Your task to perform on an android device: Play the latest video from the Huffington Post Image 0: 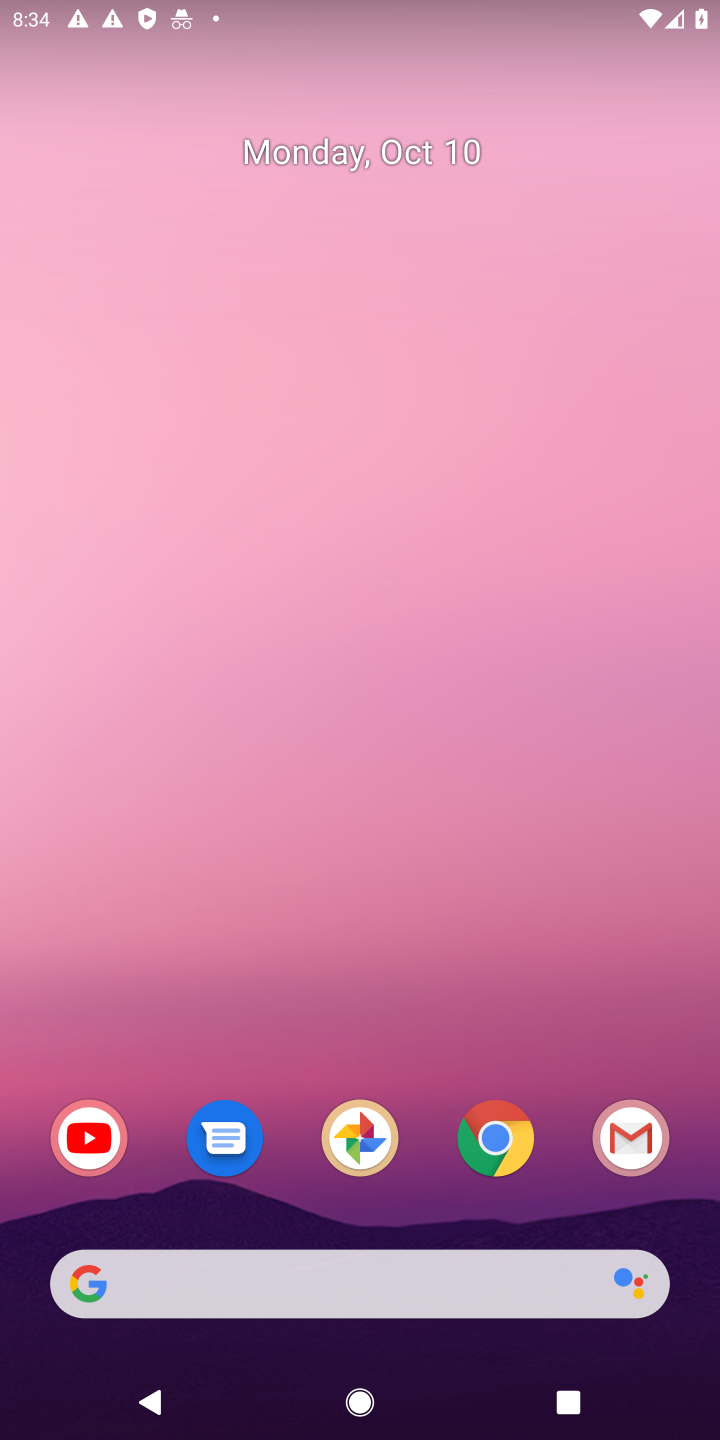
Step 0: click (96, 1137)
Your task to perform on an android device: Play the latest video from the Huffington Post Image 1: 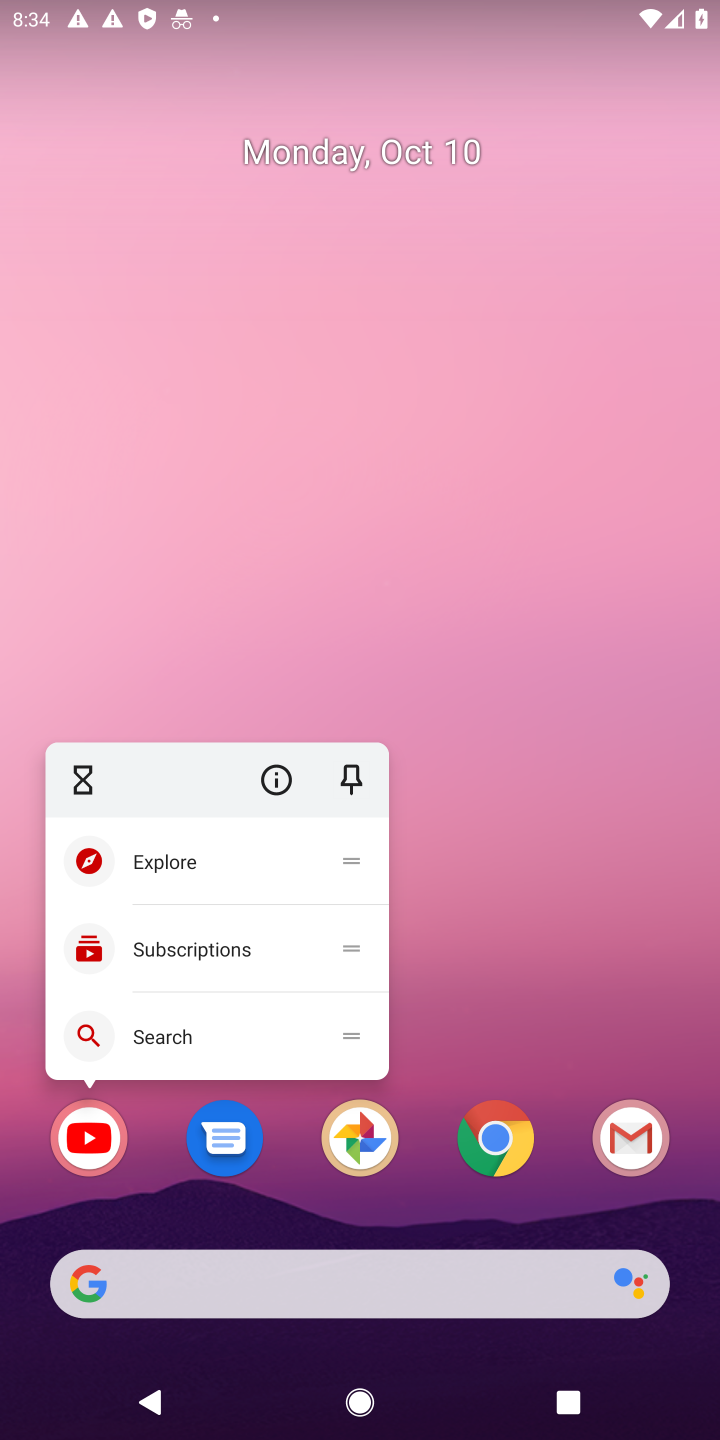
Step 1: click (96, 1137)
Your task to perform on an android device: Play the latest video from the Huffington Post Image 2: 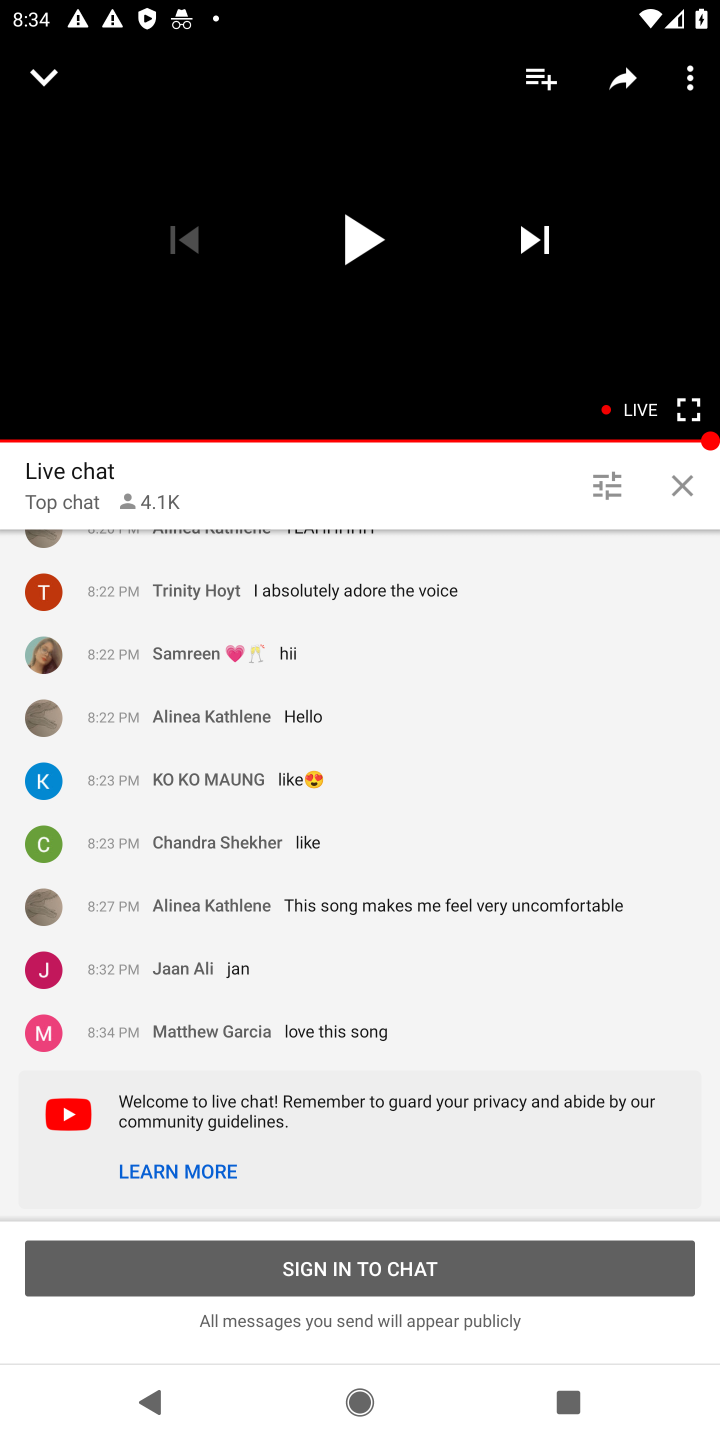
Step 2: press back button
Your task to perform on an android device: Play the latest video from the Huffington Post Image 3: 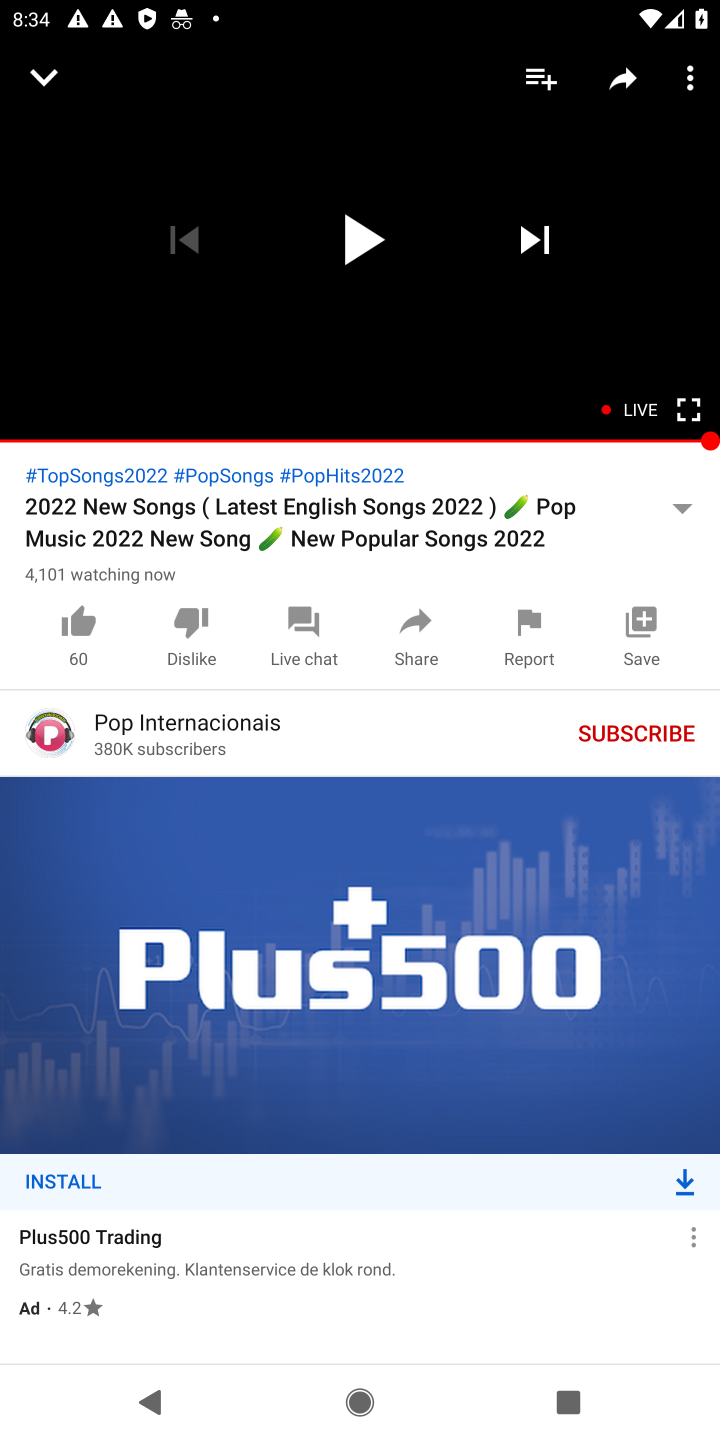
Step 3: press back button
Your task to perform on an android device: Play the latest video from the Huffington Post Image 4: 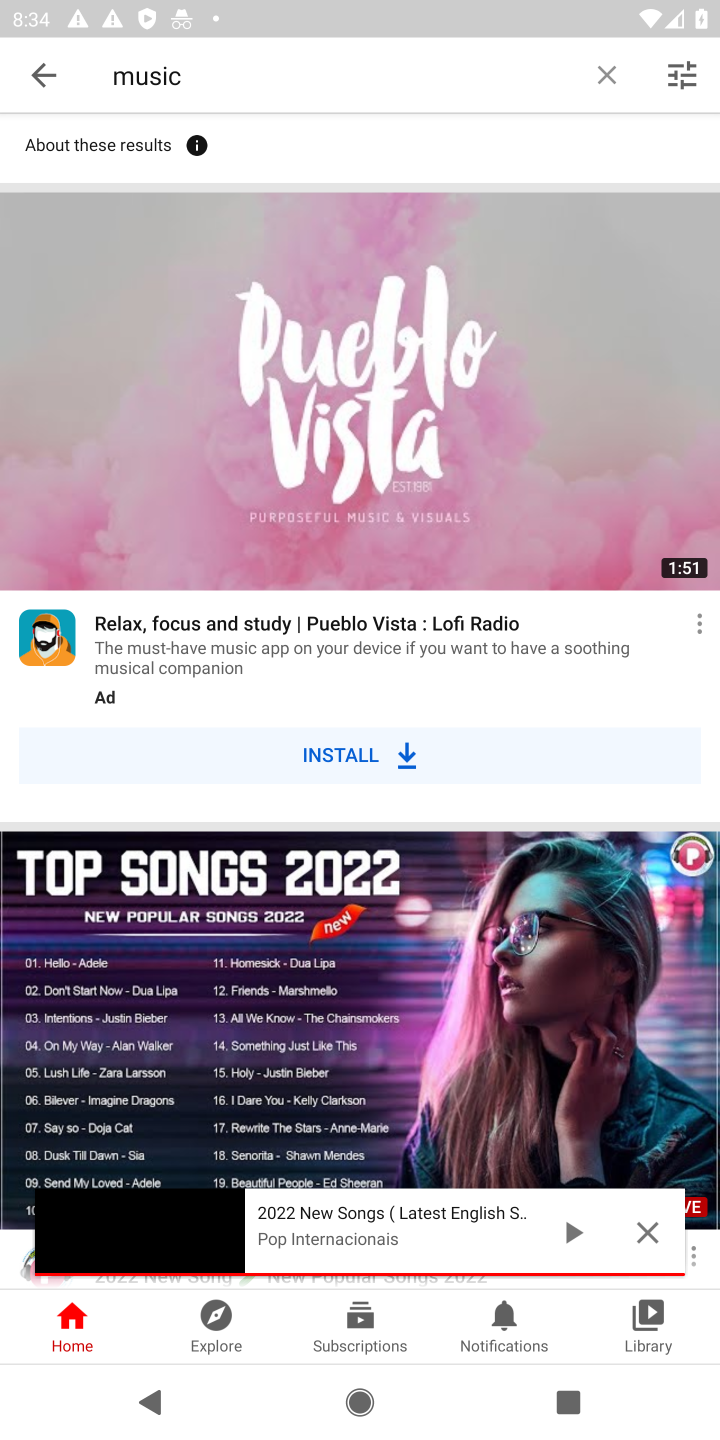
Step 4: click (652, 1232)
Your task to perform on an android device: Play the latest video from the Huffington Post Image 5: 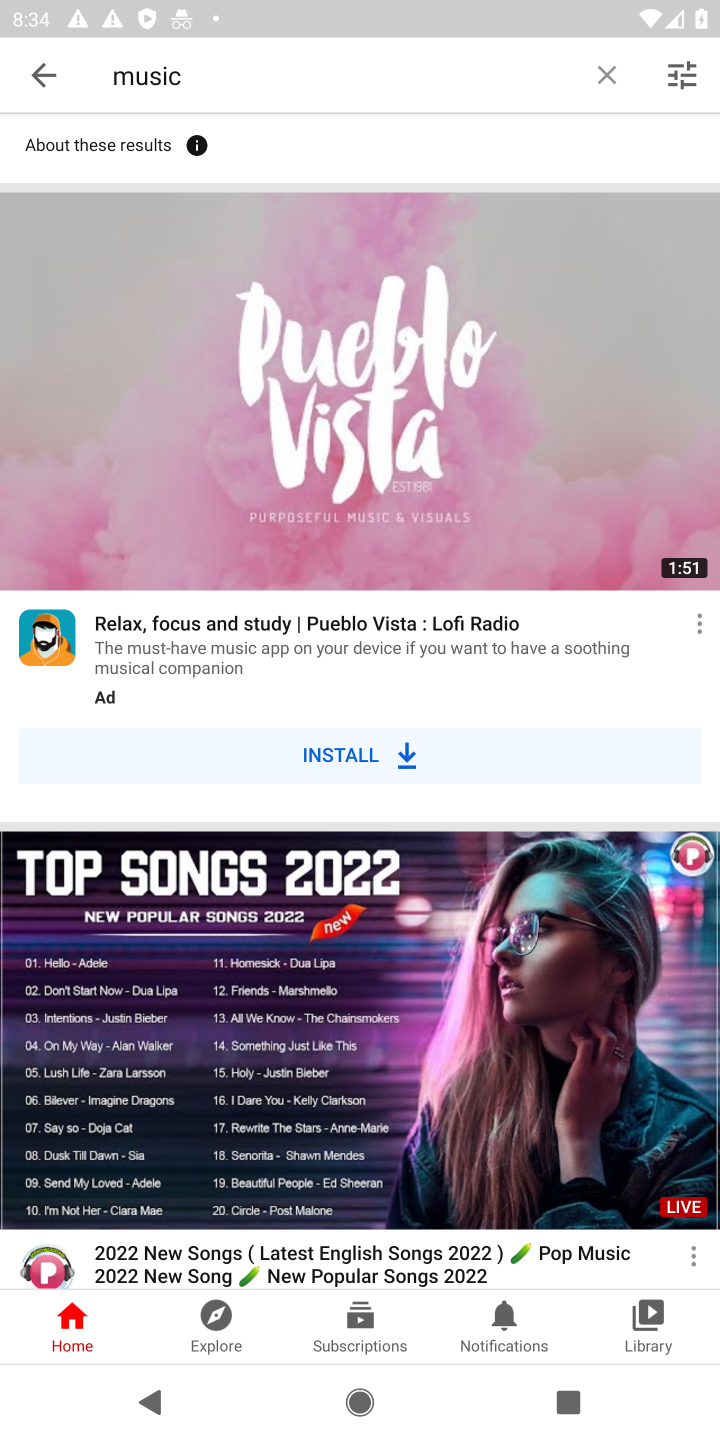
Step 5: click (601, 67)
Your task to perform on an android device: Play the latest video from the Huffington Post Image 6: 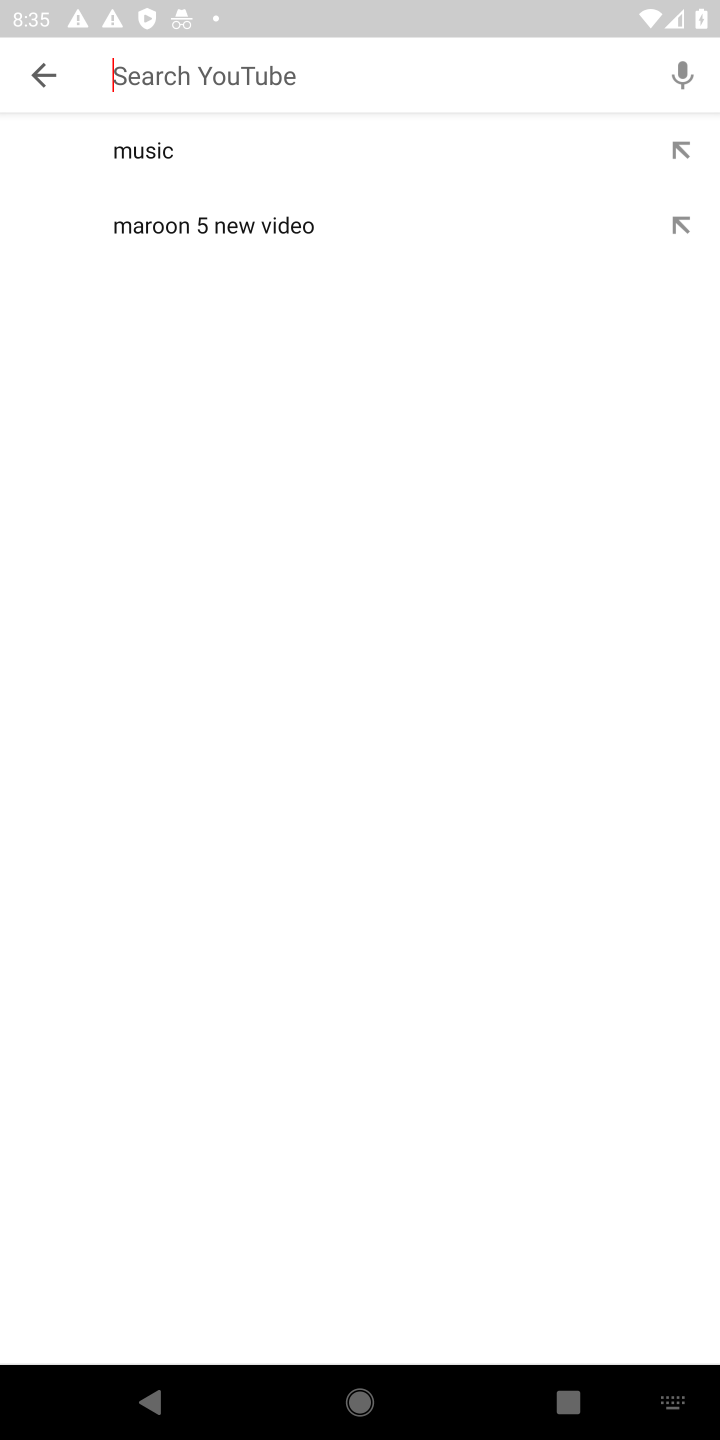
Step 6: type "latest video the Huffington Post"
Your task to perform on an android device: Play the latest video from the Huffington Post Image 7: 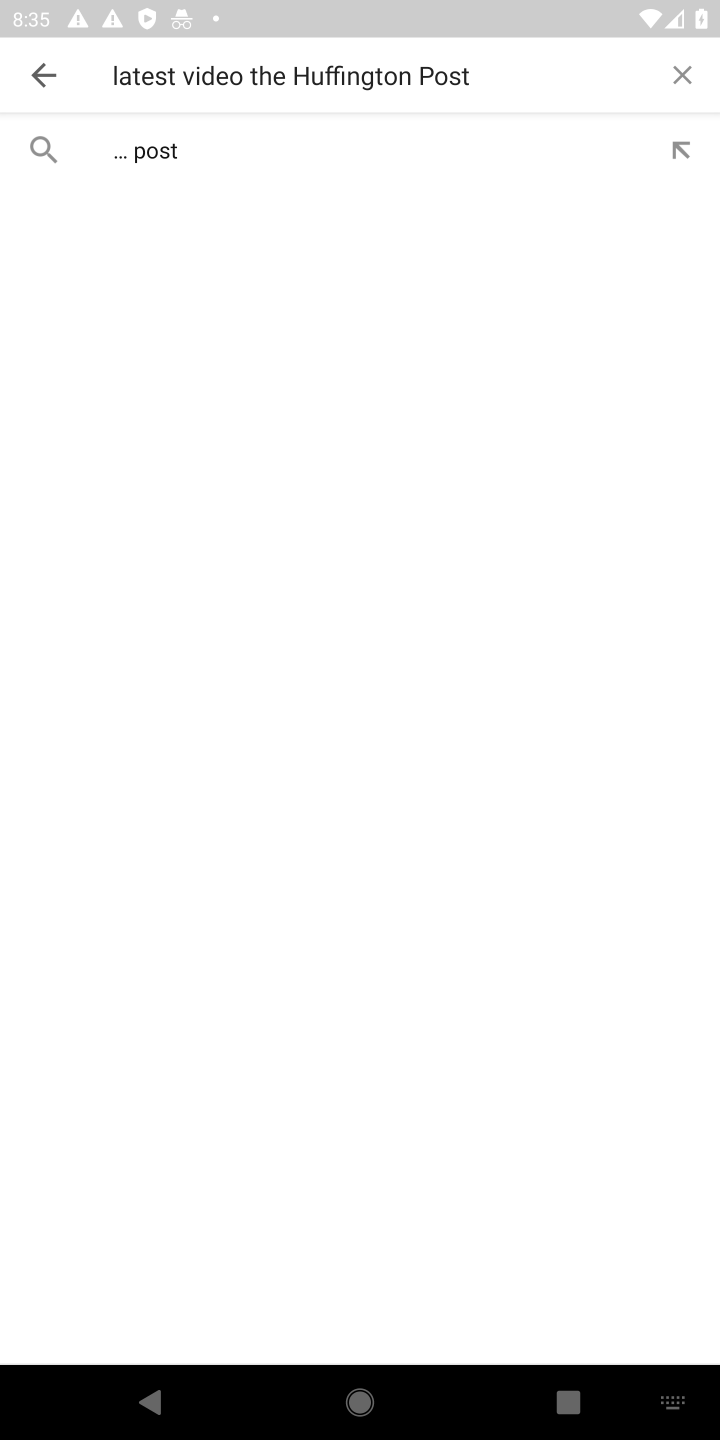
Step 7: click (153, 154)
Your task to perform on an android device: Play the latest video from the Huffington Post Image 8: 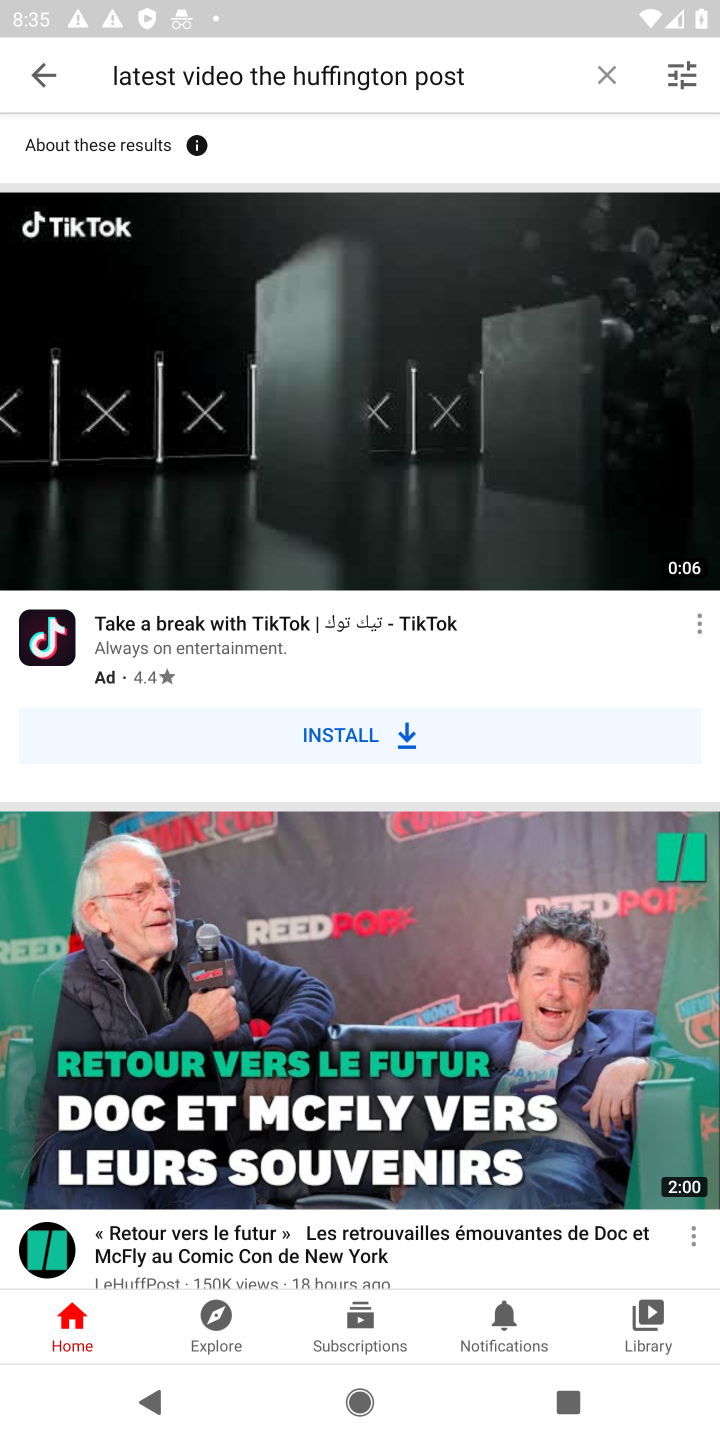
Step 8: drag from (377, 1000) to (461, 854)
Your task to perform on an android device: Play the latest video from the Huffington Post Image 9: 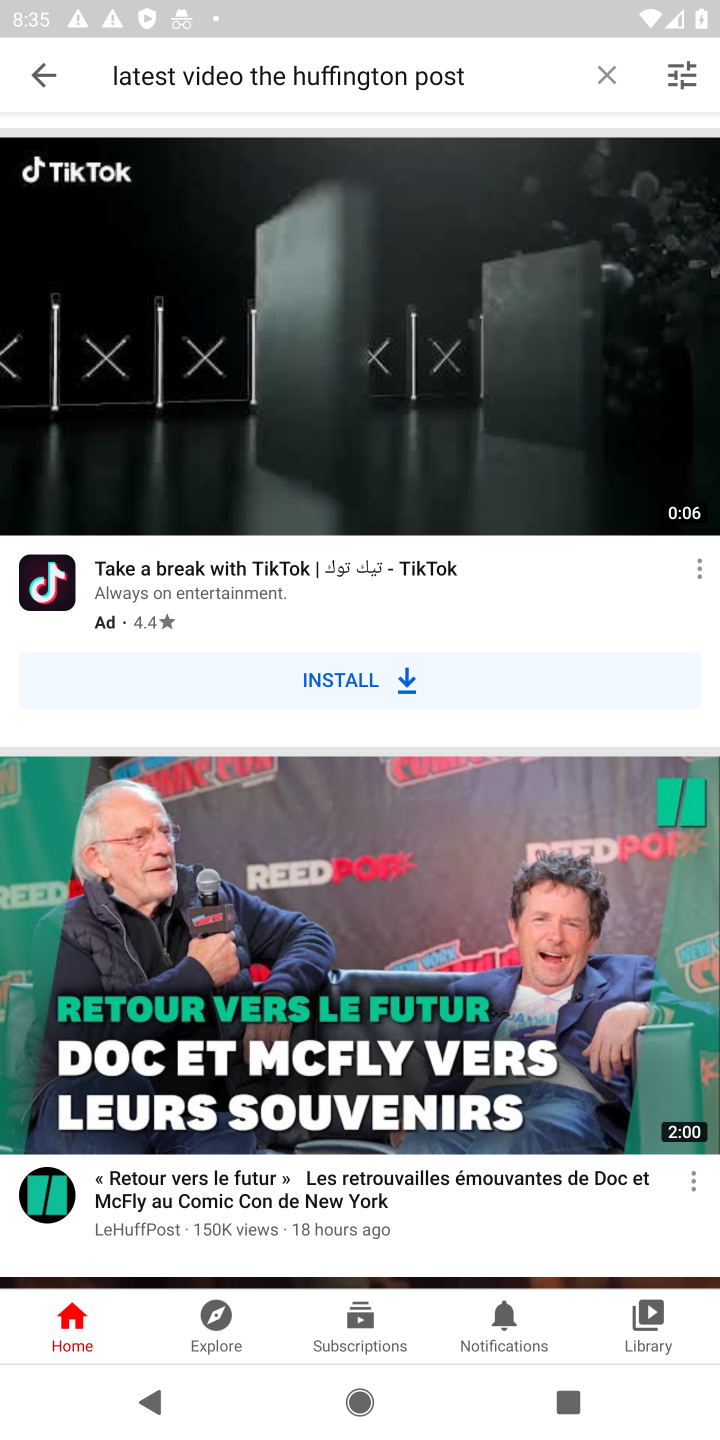
Step 9: drag from (364, 1226) to (535, 840)
Your task to perform on an android device: Play the latest video from the Huffington Post Image 10: 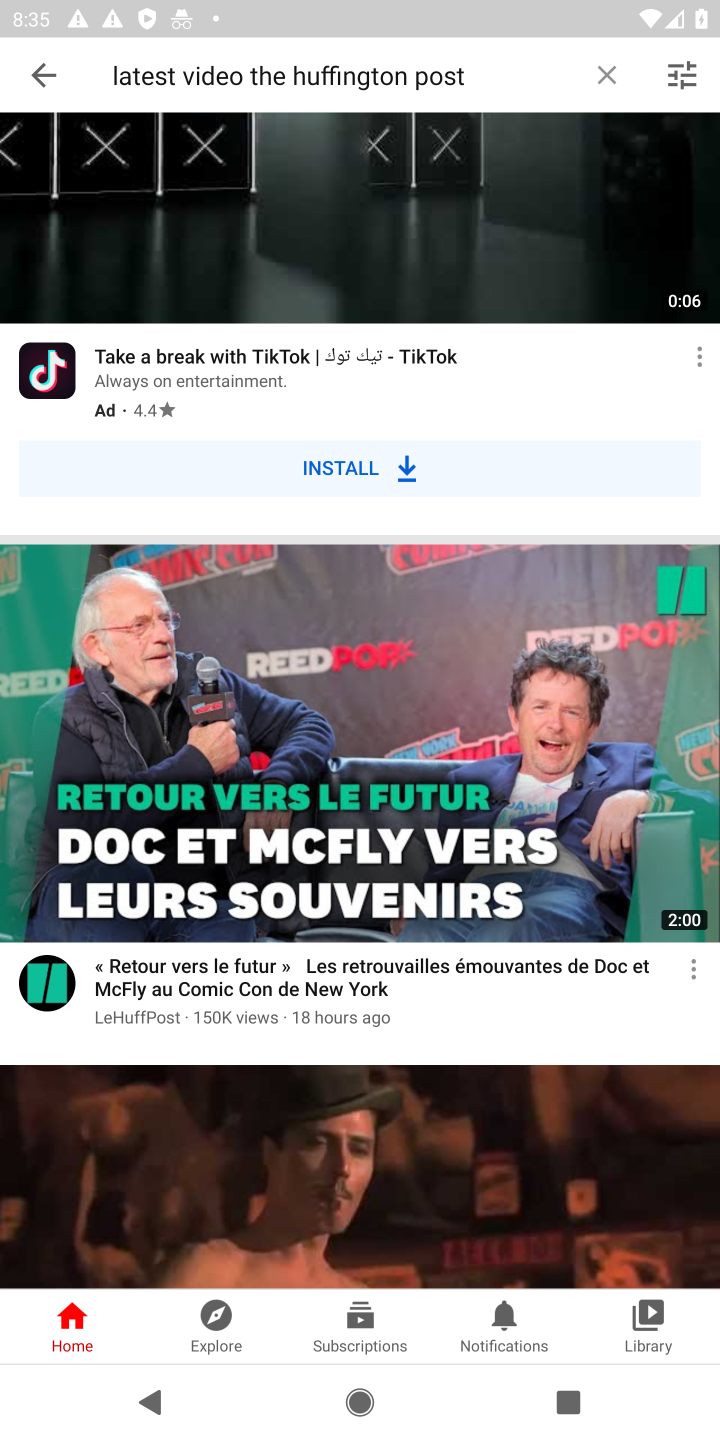
Step 10: drag from (326, 1057) to (517, 601)
Your task to perform on an android device: Play the latest video from the Huffington Post Image 11: 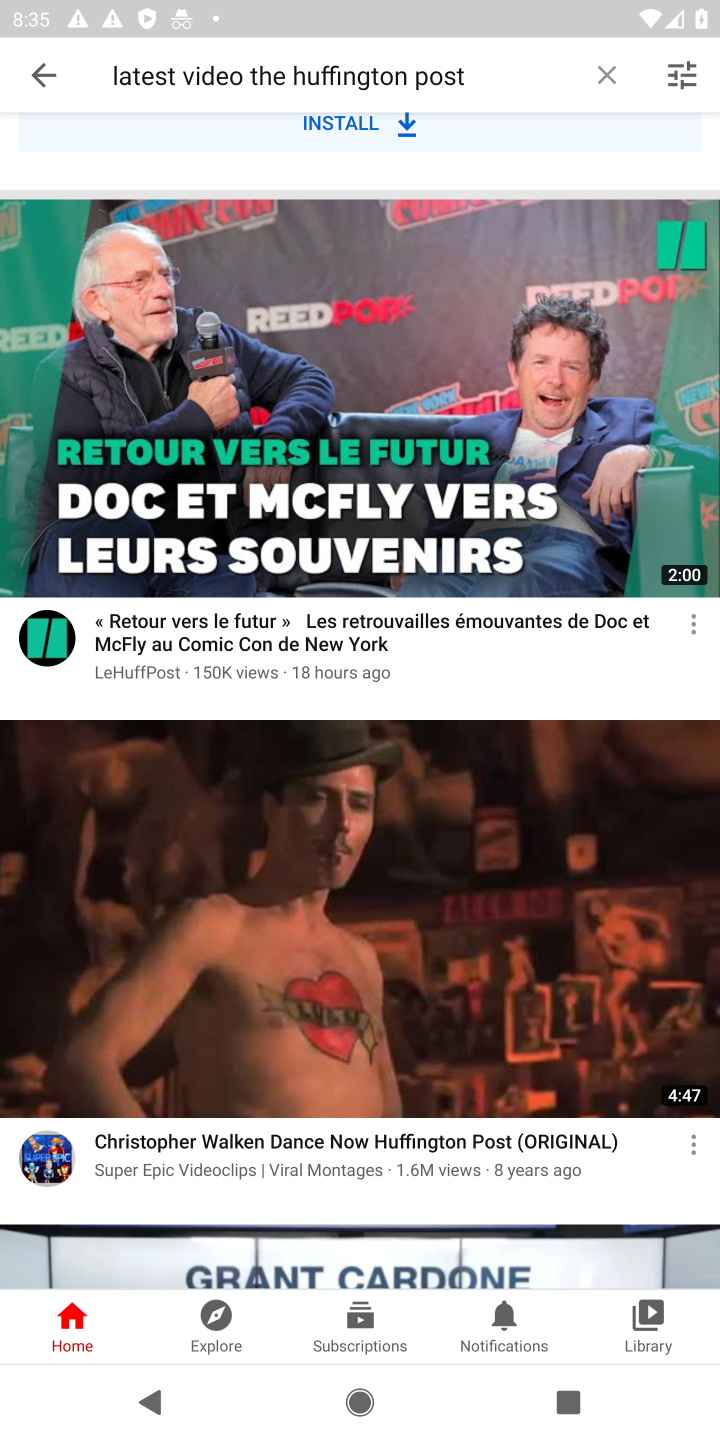
Step 11: drag from (319, 1176) to (525, 530)
Your task to perform on an android device: Play the latest video from the Huffington Post Image 12: 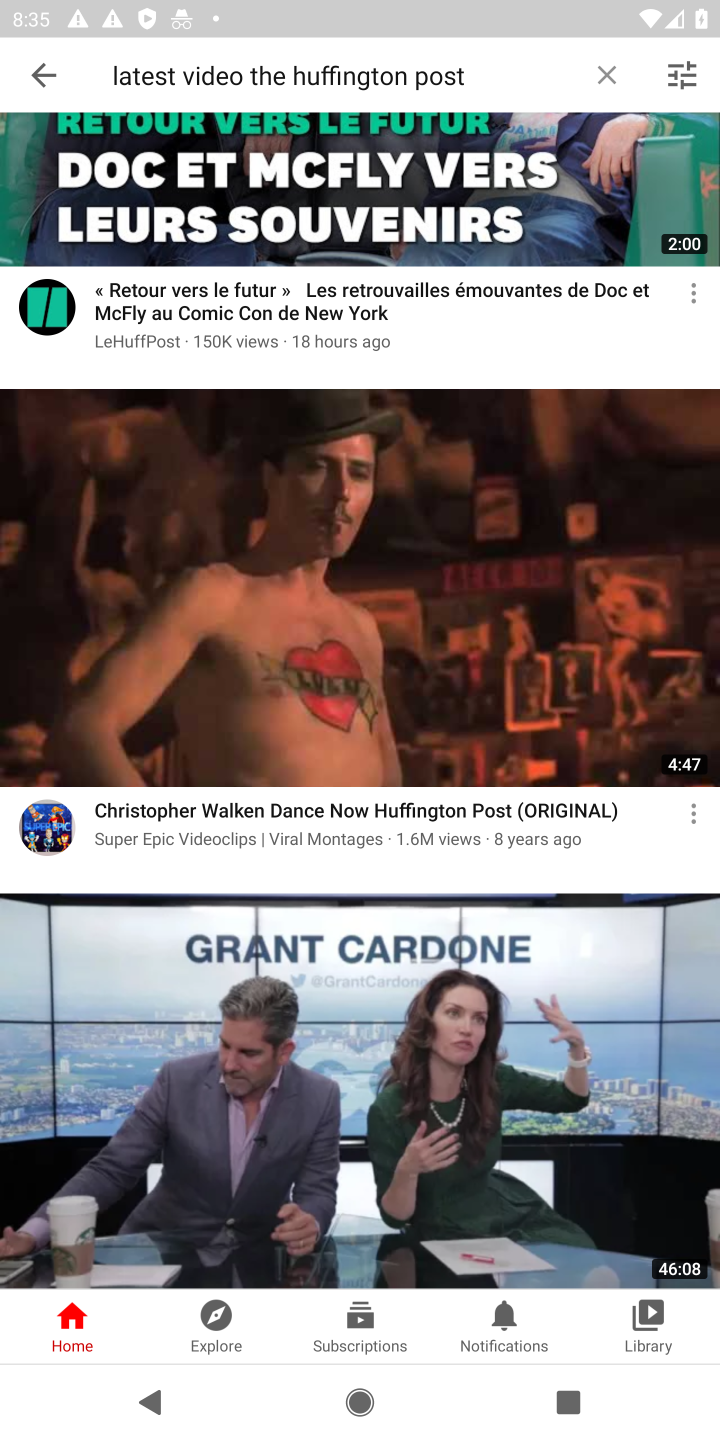
Step 12: drag from (317, 1025) to (491, 527)
Your task to perform on an android device: Play the latest video from the Huffington Post Image 13: 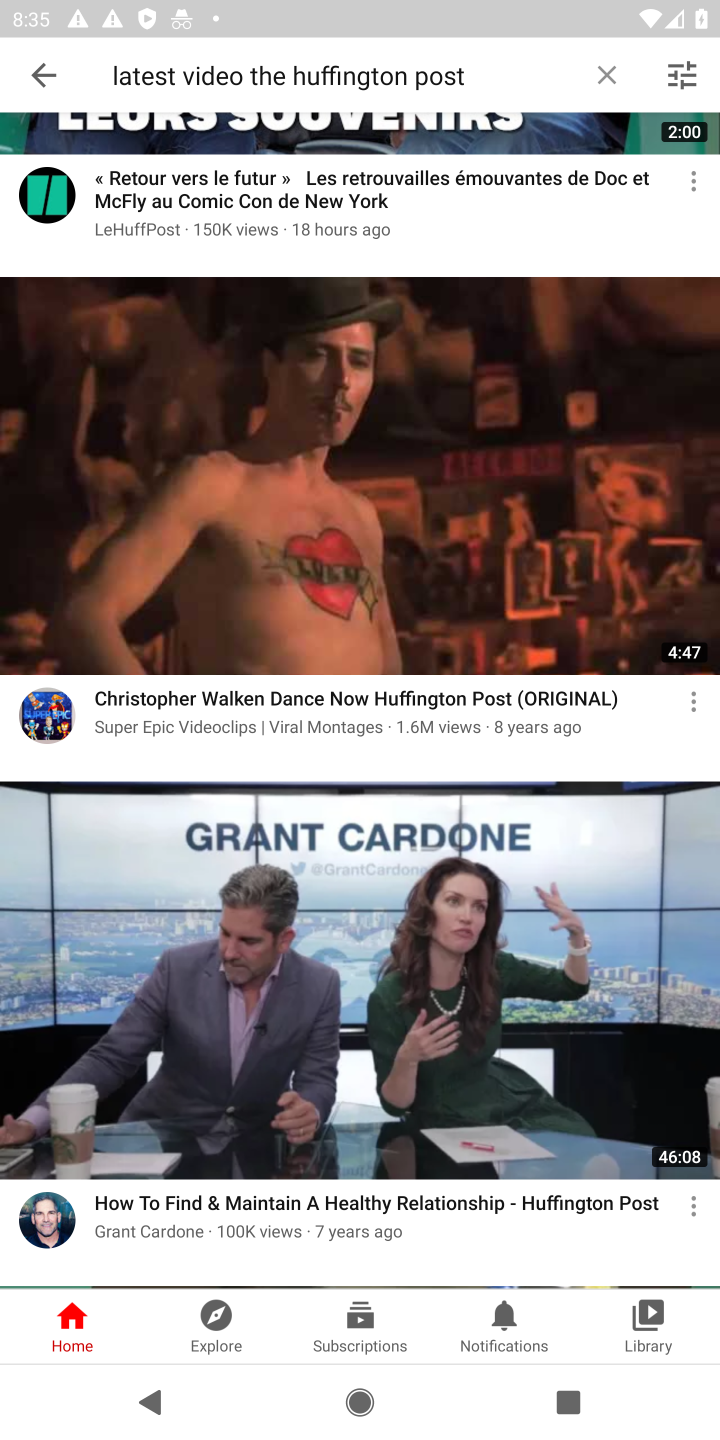
Step 13: click (309, 1089)
Your task to perform on an android device: Play the latest video from the Huffington Post Image 14: 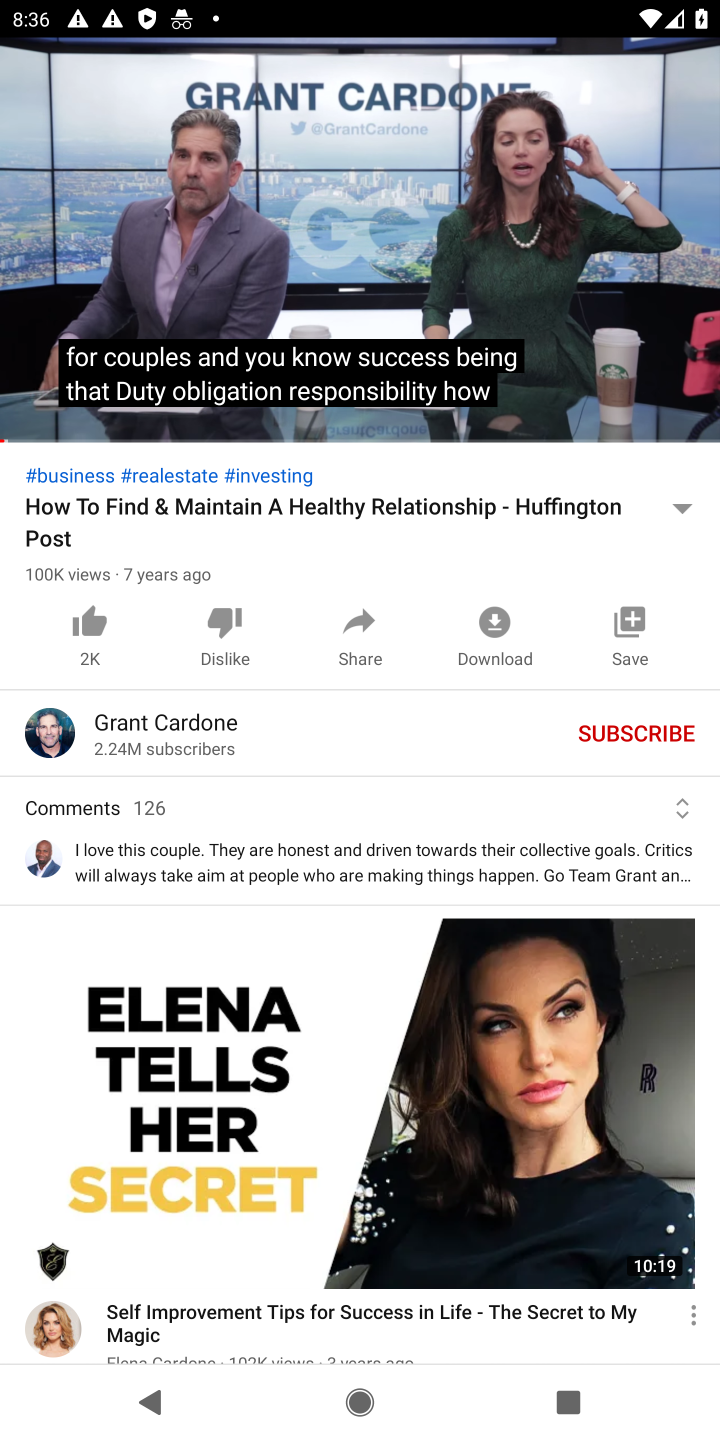
Step 14: task complete